Your task to perform on an android device: Toggle the flashlight Image 0: 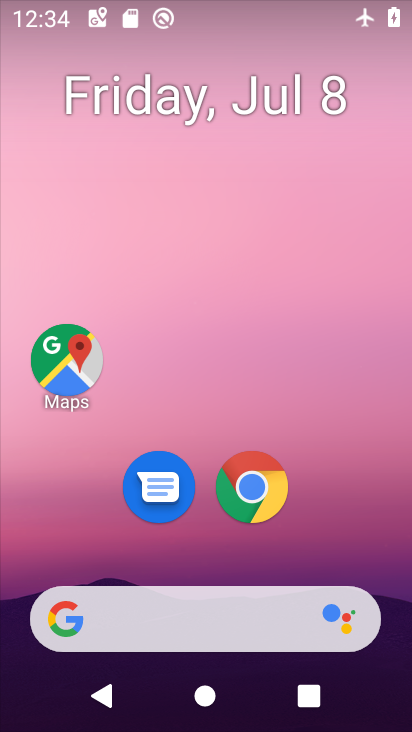
Step 0: drag from (283, 5) to (288, 351)
Your task to perform on an android device: Toggle the flashlight Image 1: 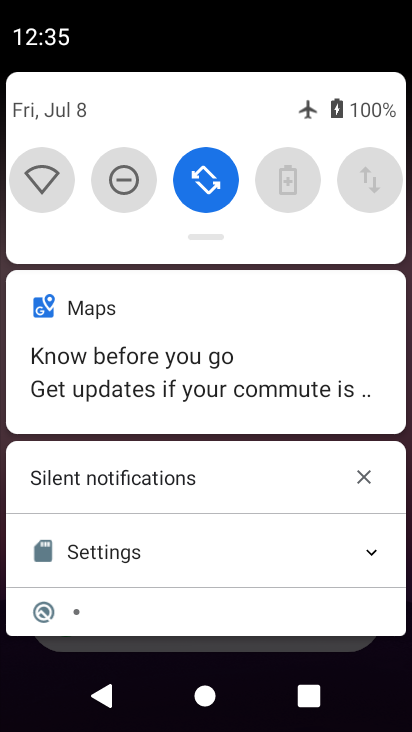
Step 1: drag from (247, 114) to (238, 467)
Your task to perform on an android device: Toggle the flashlight Image 2: 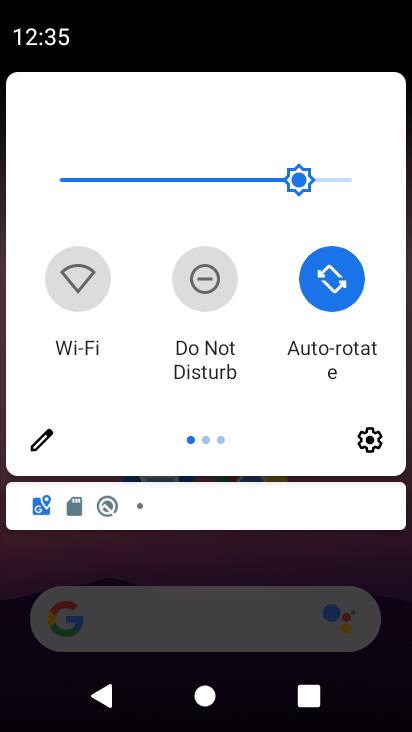
Step 2: click (40, 434)
Your task to perform on an android device: Toggle the flashlight Image 3: 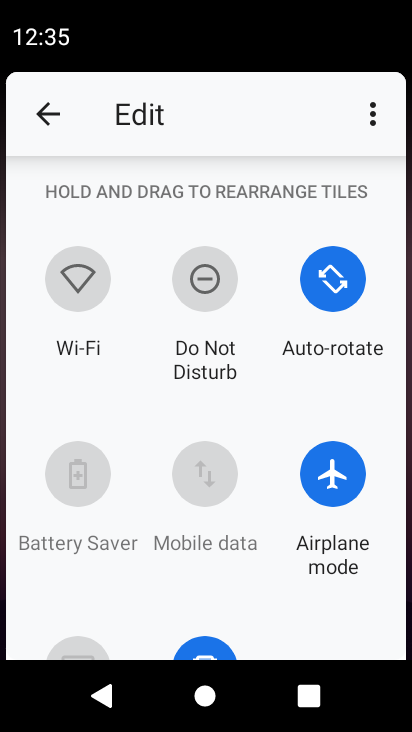
Step 3: task complete